Your task to perform on an android device: Go to network settings Image 0: 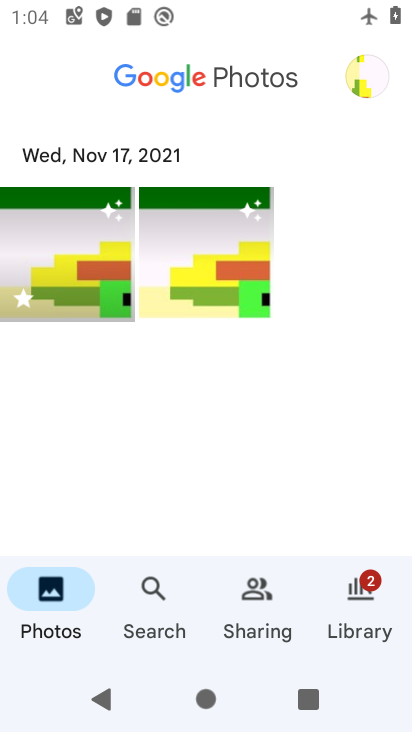
Step 0: press home button
Your task to perform on an android device: Go to network settings Image 1: 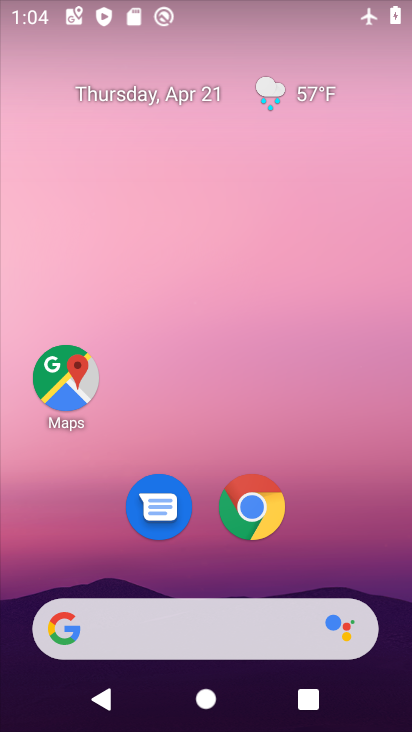
Step 1: drag from (205, 466) to (288, 1)
Your task to perform on an android device: Go to network settings Image 2: 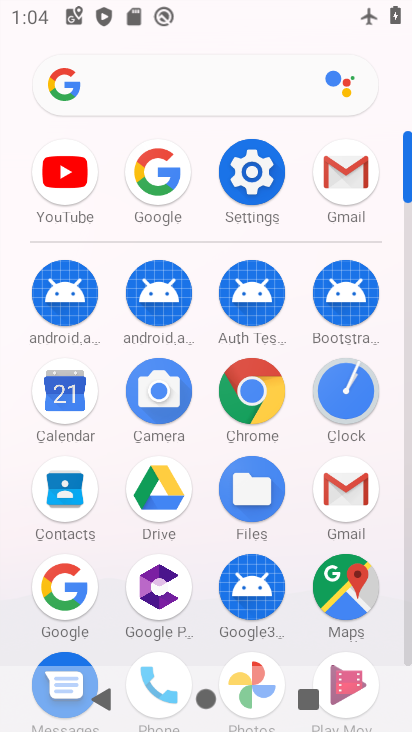
Step 2: click (257, 172)
Your task to perform on an android device: Go to network settings Image 3: 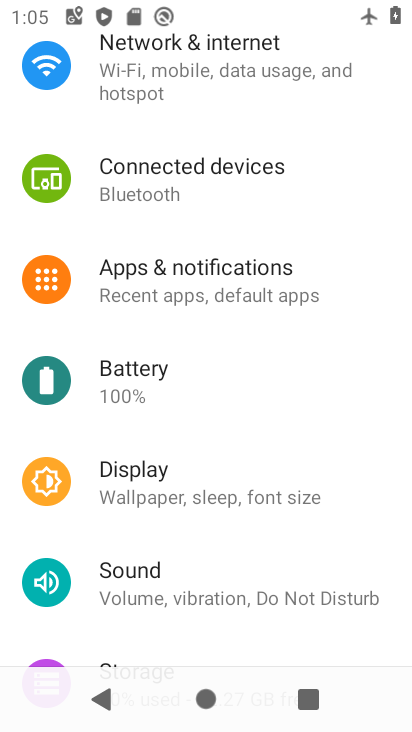
Step 3: click (248, 45)
Your task to perform on an android device: Go to network settings Image 4: 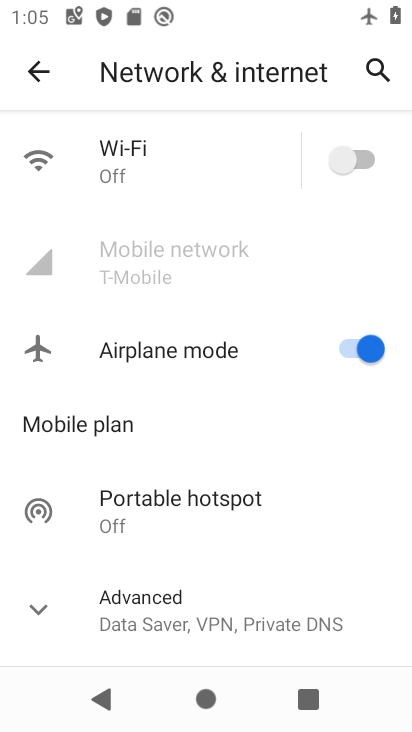
Step 4: task complete